Your task to perform on an android device: Open calendar and show me the third week of next month Image 0: 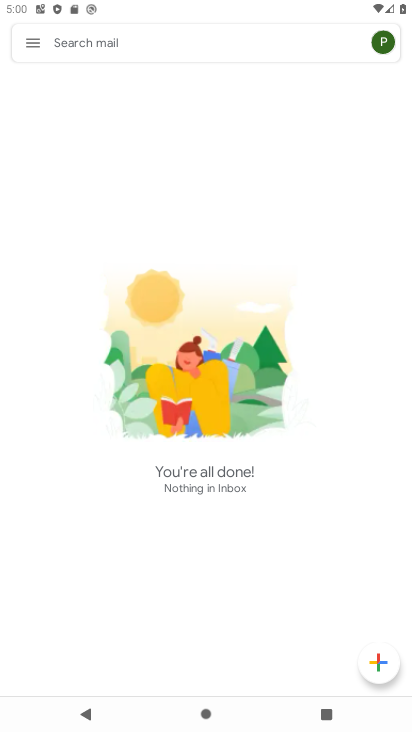
Step 0: press home button
Your task to perform on an android device: Open calendar and show me the third week of next month Image 1: 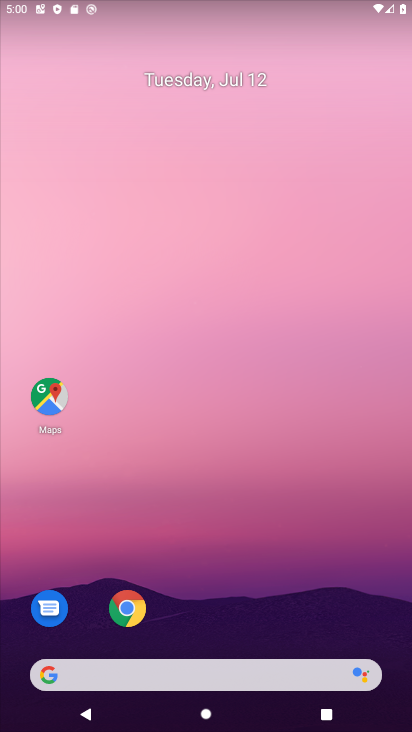
Step 1: click (190, 84)
Your task to perform on an android device: Open calendar and show me the third week of next month Image 2: 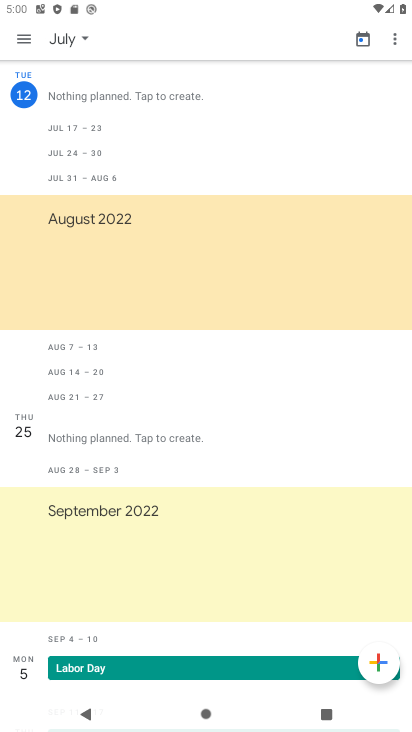
Step 2: click (57, 47)
Your task to perform on an android device: Open calendar and show me the third week of next month Image 3: 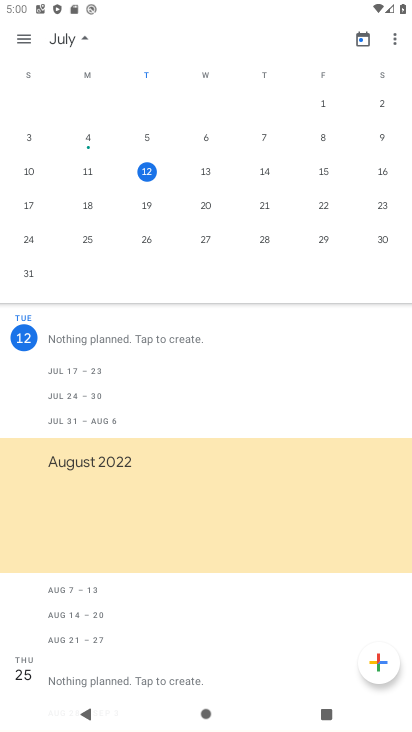
Step 3: drag from (363, 260) to (38, 166)
Your task to perform on an android device: Open calendar and show me the third week of next month Image 4: 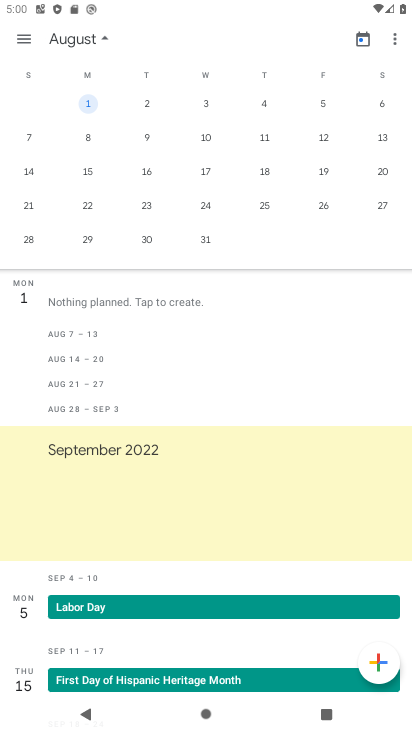
Step 4: click (275, 179)
Your task to perform on an android device: Open calendar and show me the third week of next month Image 5: 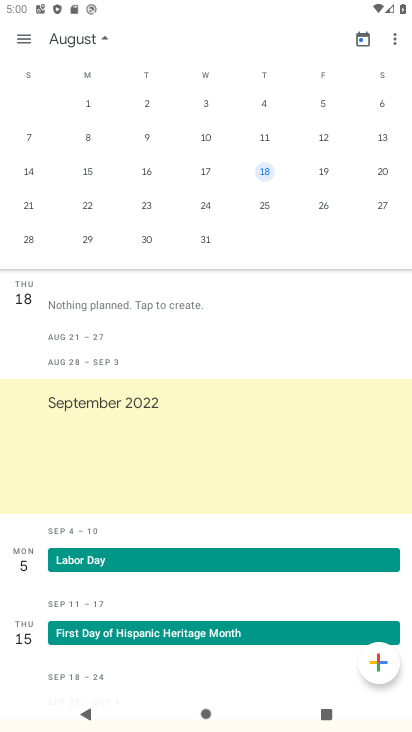
Step 5: task complete